Your task to perform on an android device: Go to privacy settings Image 0: 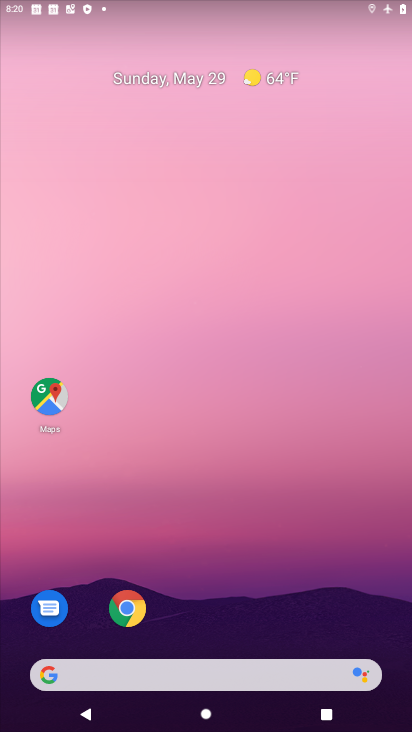
Step 0: drag from (240, 588) to (131, 35)
Your task to perform on an android device: Go to privacy settings Image 1: 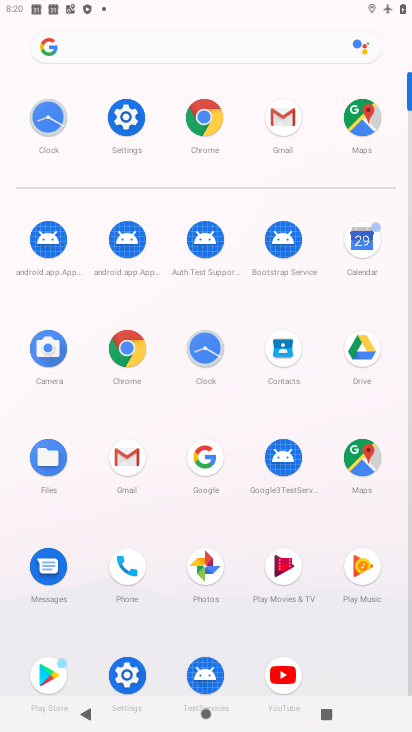
Step 1: click (121, 124)
Your task to perform on an android device: Go to privacy settings Image 2: 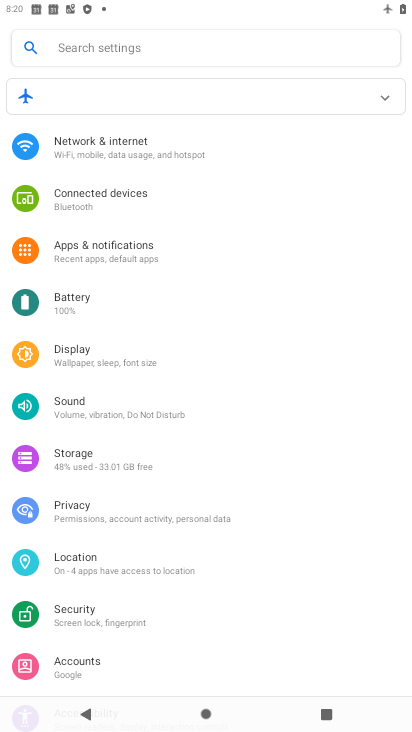
Step 2: click (72, 502)
Your task to perform on an android device: Go to privacy settings Image 3: 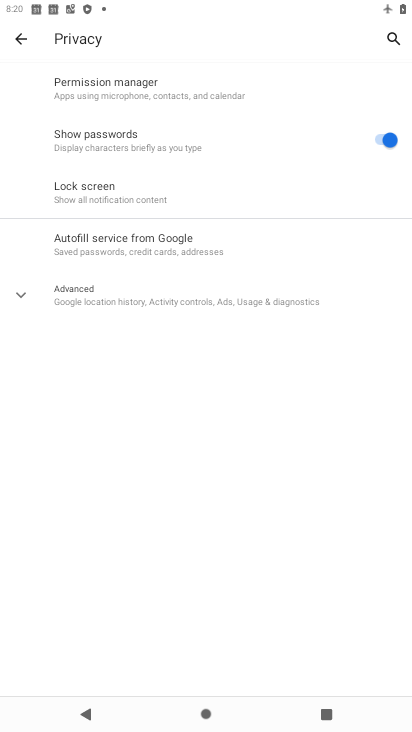
Step 3: task complete